Your task to perform on an android device: Open Maps and search for coffee Image 0: 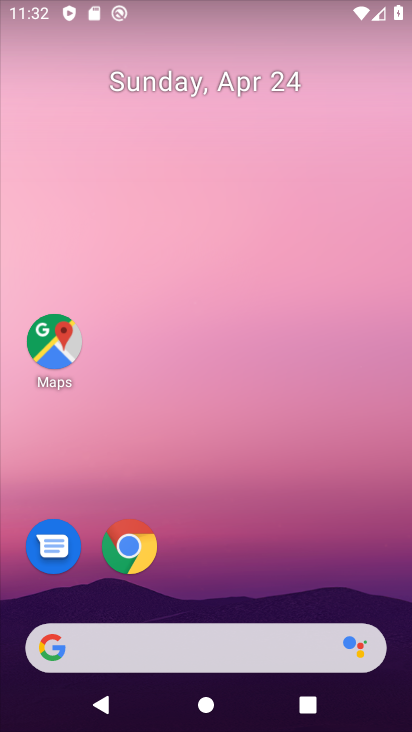
Step 0: click (55, 329)
Your task to perform on an android device: Open Maps and search for coffee Image 1: 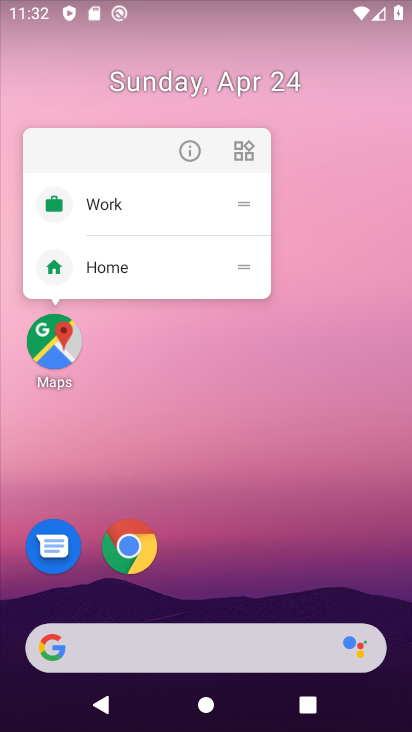
Step 1: click (55, 329)
Your task to perform on an android device: Open Maps and search for coffee Image 2: 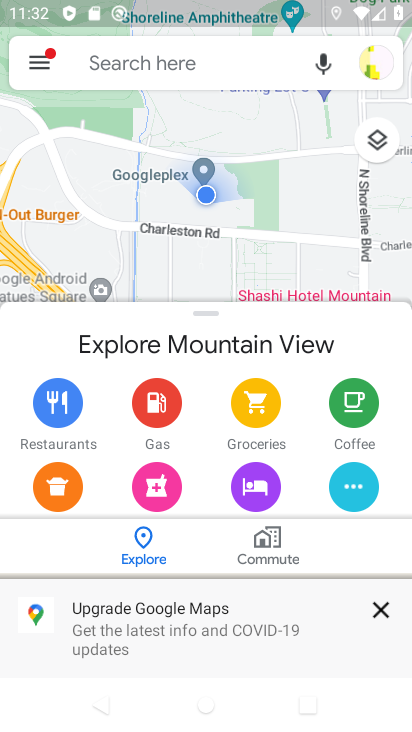
Step 2: type "coffee"
Your task to perform on an android device: Open Maps and search for coffee Image 3: 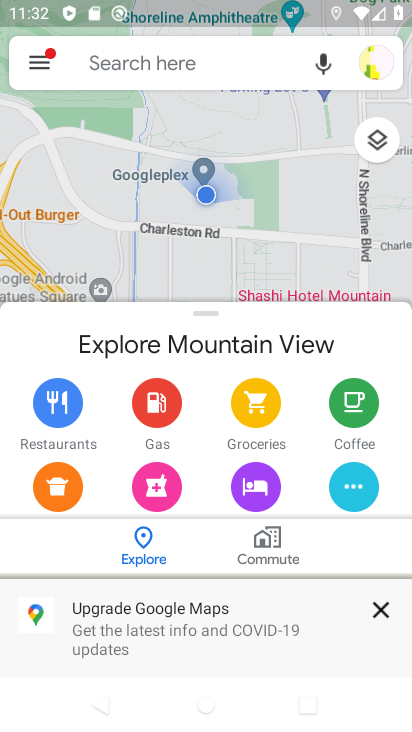
Step 3: click (130, 60)
Your task to perform on an android device: Open Maps and search for coffee Image 4: 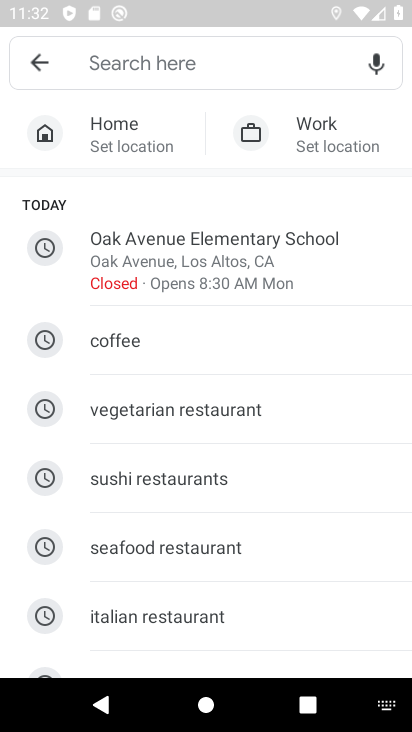
Step 4: type "coffee"
Your task to perform on an android device: Open Maps and search for coffee Image 5: 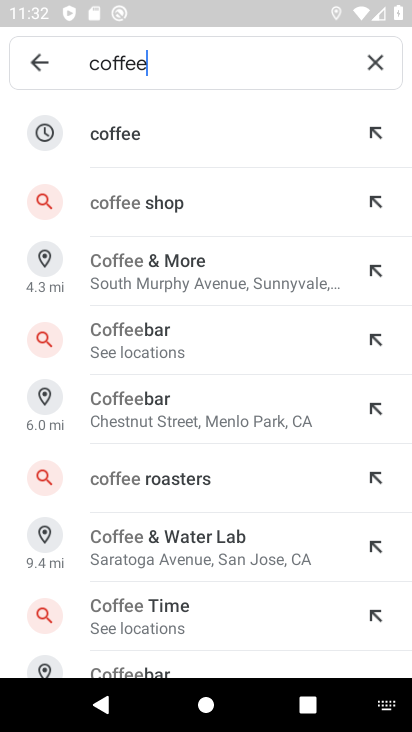
Step 5: click (152, 127)
Your task to perform on an android device: Open Maps and search for coffee Image 6: 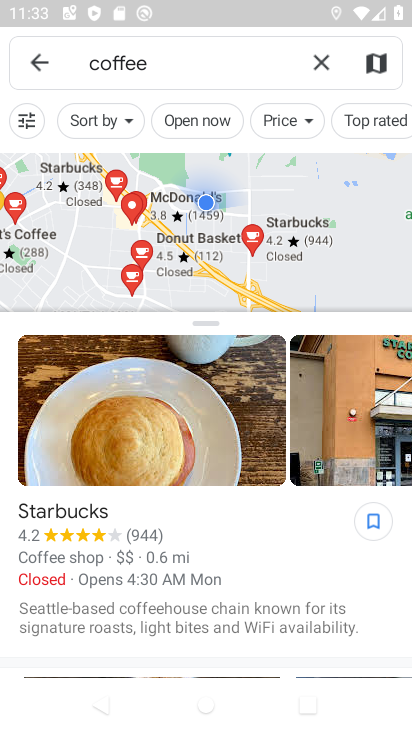
Step 6: task complete